Your task to perform on an android device: Open Chrome and go to the settings page Image 0: 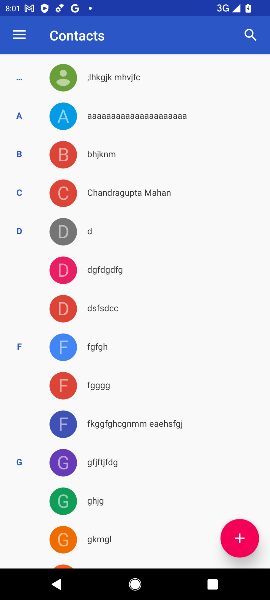
Step 0: press home button
Your task to perform on an android device: Open Chrome and go to the settings page Image 1: 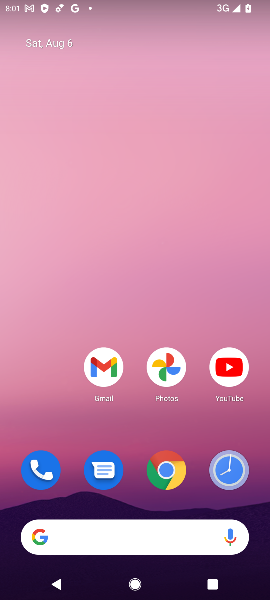
Step 1: click (179, 452)
Your task to perform on an android device: Open Chrome and go to the settings page Image 2: 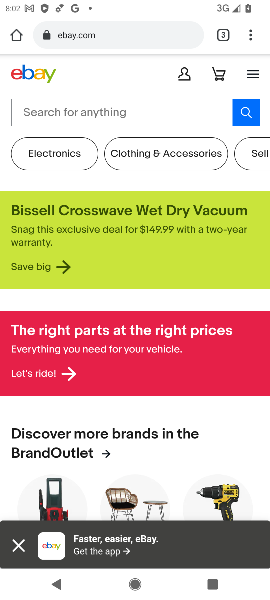
Step 2: click (248, 35)
Your task to perform on an android device: Open Chrome and go to the settings page Image 3: 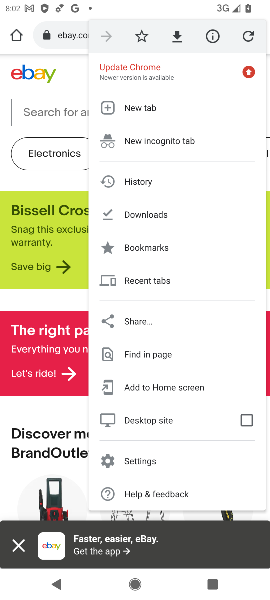
Step 3: click (143, 462)
Your task to perform on an android device: Open Chrome and go to the settings page Image 4: 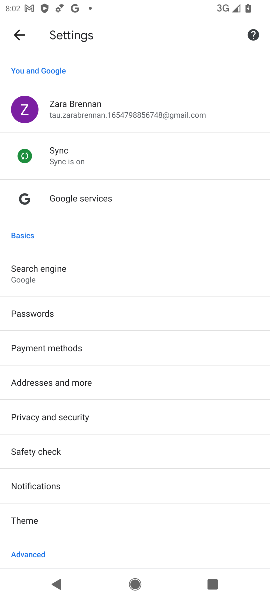
Step 4: task complete